Your task to perform on an android device: check data usage Image 0: 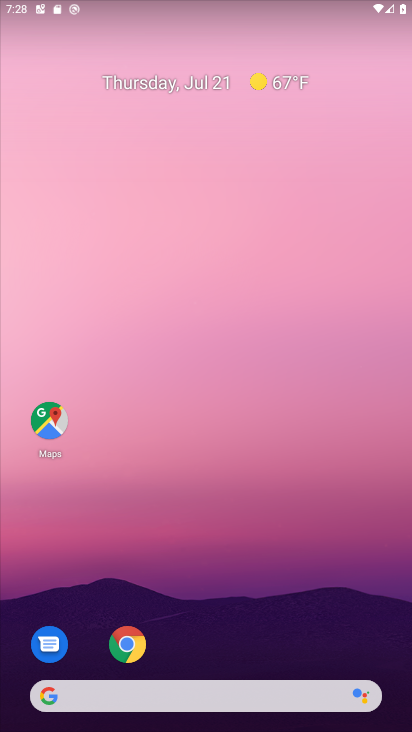
Step 0: drag from (223, 667) to (218, 91)
Your task to perform on an android device: check data usage Image 1: 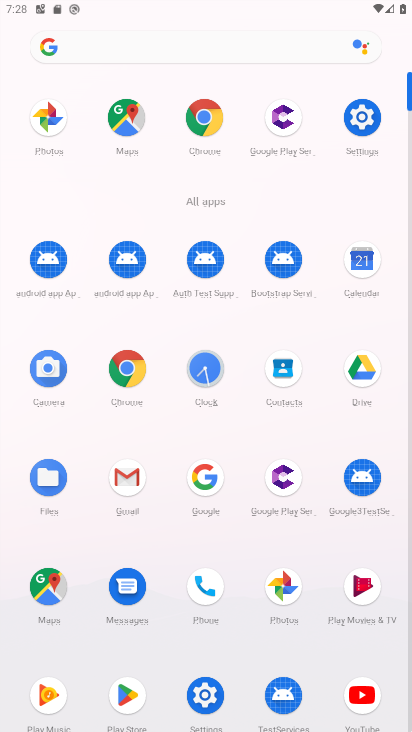
Step 1: click (207, 685)
Your task to perform on an android device: check data usage Image 2: 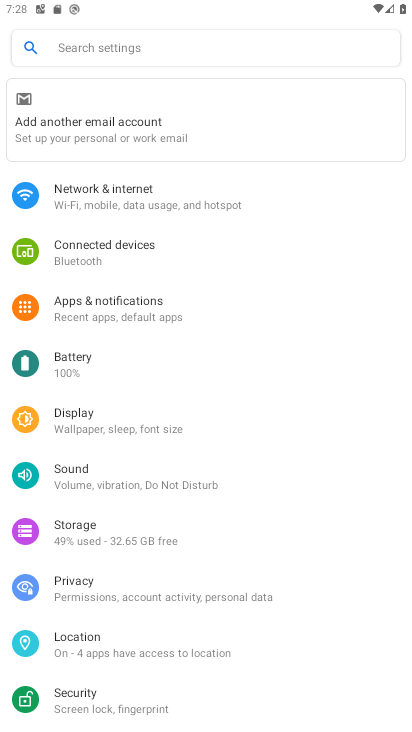
Step 2: drag from (114, 572) to (129, 725)
Your task to perform on an android device: check data usage Image 3: 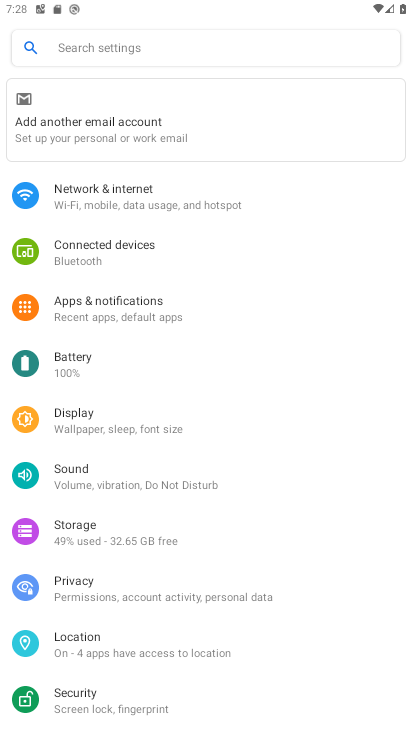
Step 3: click (121, 196)
Your task to perform on an android device: check data usage Image 4: 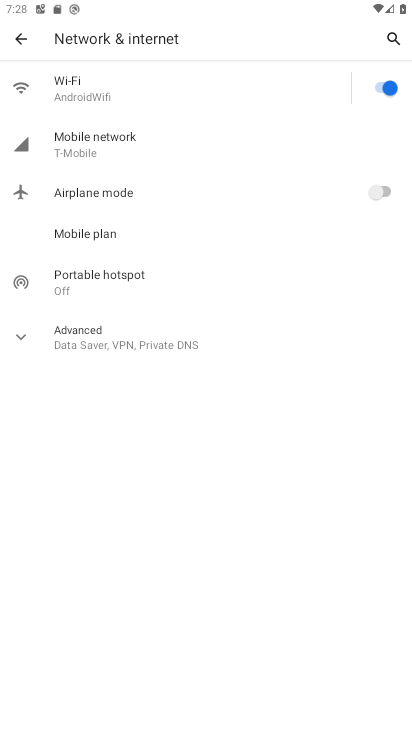
Step 4: click (102, 146)
Your task to perform on an android device: check data usage Image 5: 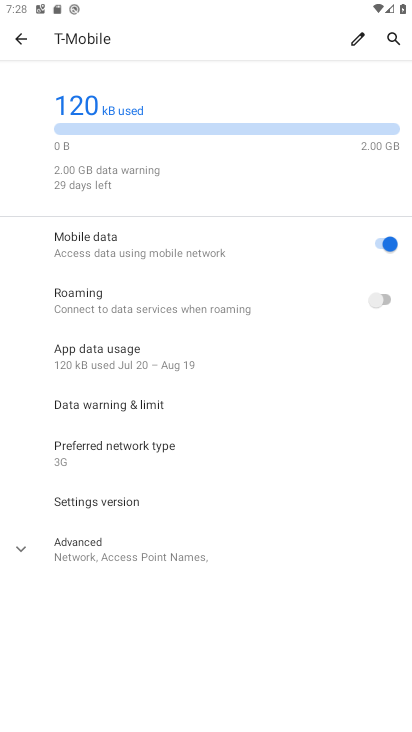
Step 5: click (204, 361)
Your task to perform on an android device: check data usage Image 6: 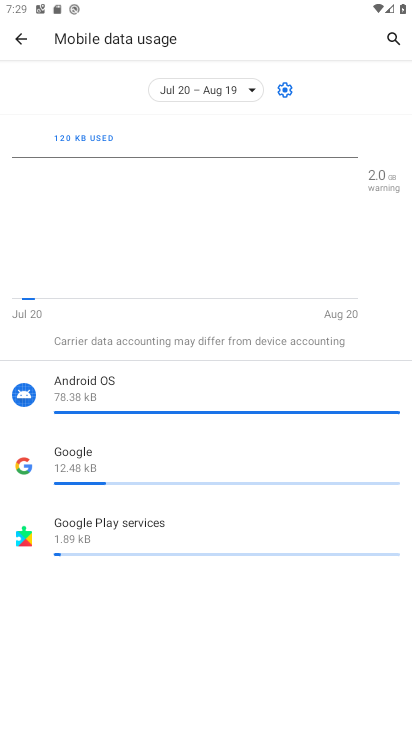
Step 6: task complete